Your task to perform on an android device: search for starred emails in the gmail app Image 0: 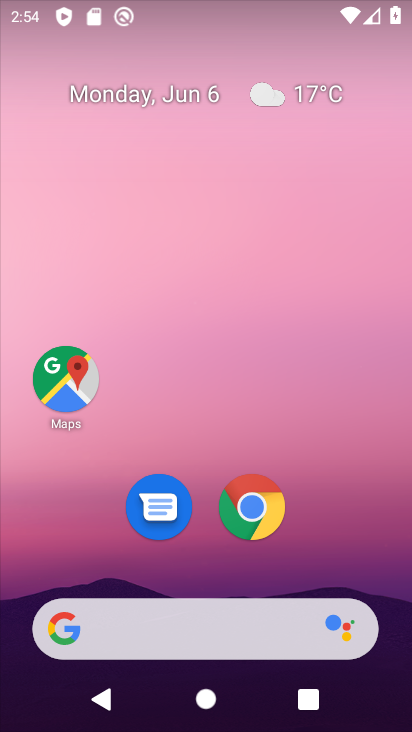
Step 0: click (350, 564)
Your task to perform on an android device: search for starred emails in the gmail app Image 1: 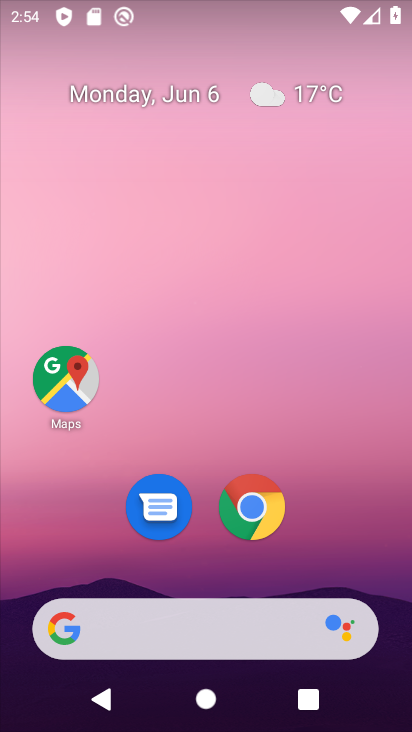
Step 1: press home button
Your task to perform on an android device: search for starred emails in the gmail app Image 2: 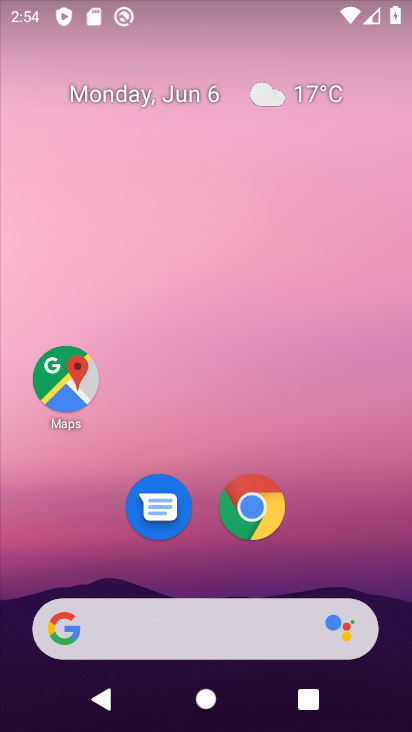
Step 2: drag from (370, 570) to (340, 171)
Your task to perform on an android device: search for starred emails in the gmail app Image 3: 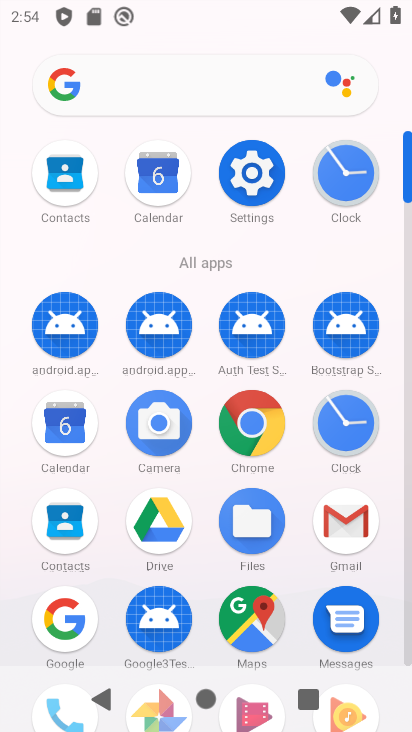
Step 3: click (342, 508)
Your task to perform on an android device: search for starred emails in the gmail app Image 4: 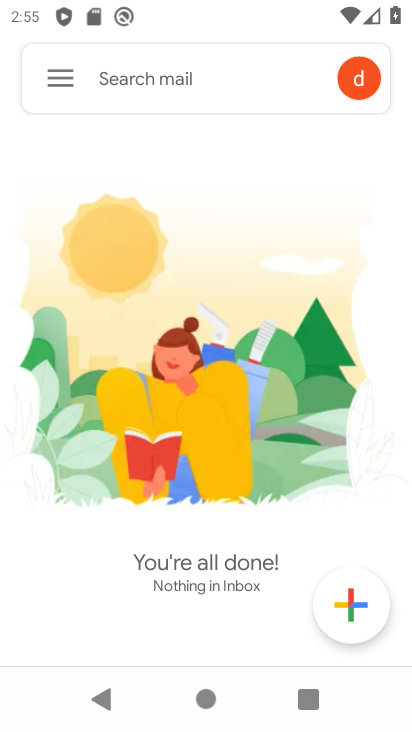
Step 4: click (54, 79)
Your task to perform on an android device: search for starred emails in the gmail app Image 5: 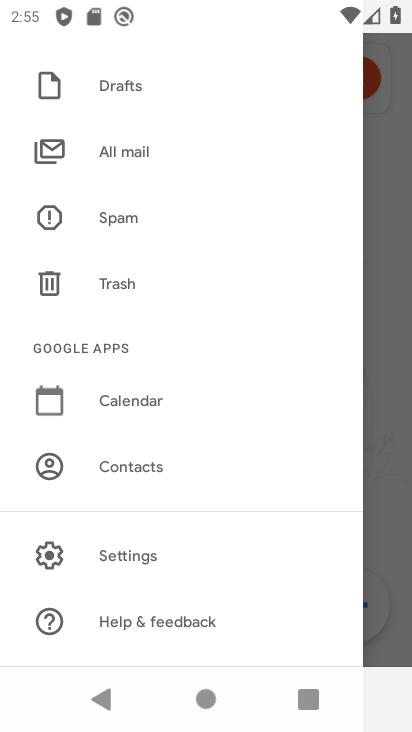
Step 5: drag from (264, 91) to (268, 573)
Your task to perform on an android device: search for starred emails in the gmail app Image 6: 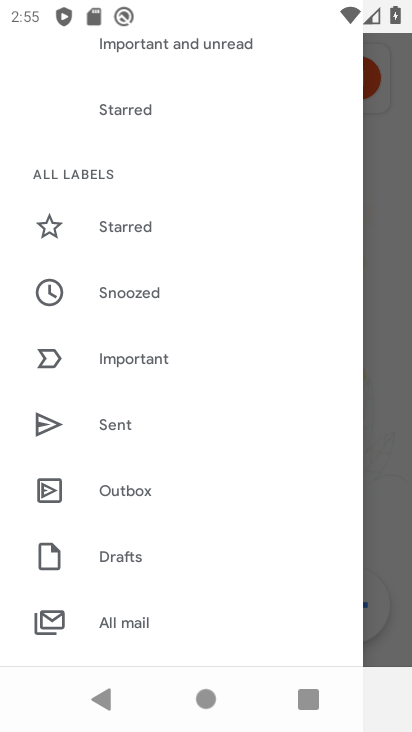
Step 6: click (136, 221)
Your task to perform on an android device: search for starred emails in the gmail app Image 7: 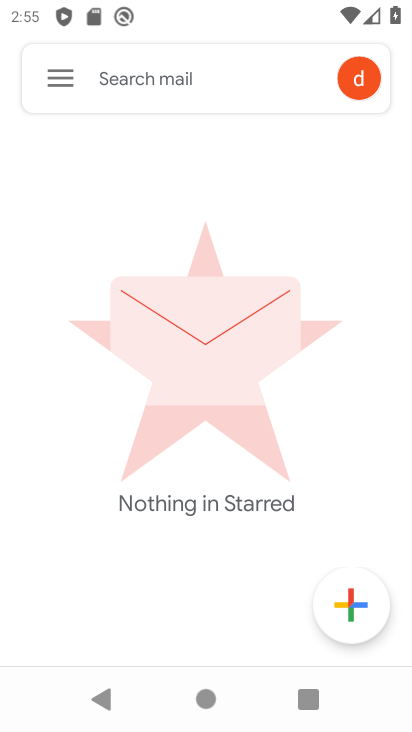
Step 7: task complete